Your task to perform on an android device: Open calendar and show me the second week of next month Image 0: 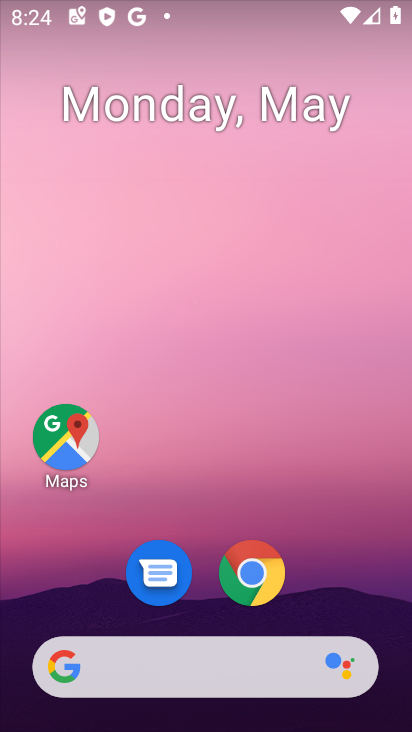
Step 0: drag from (260, 672) to (265, 184)
Your task to perform on an android device: Open calendar and show me the second week of next month Image 1: 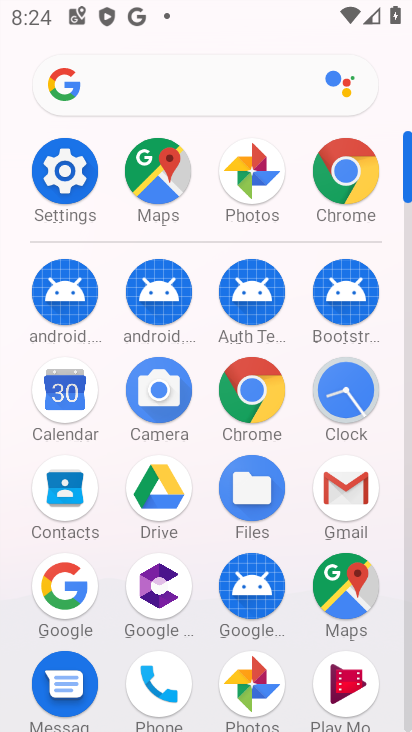
Step 1: click (71, 405)
Your task to perform on an android device: Open calendar and show me the second week of next month Image 2: 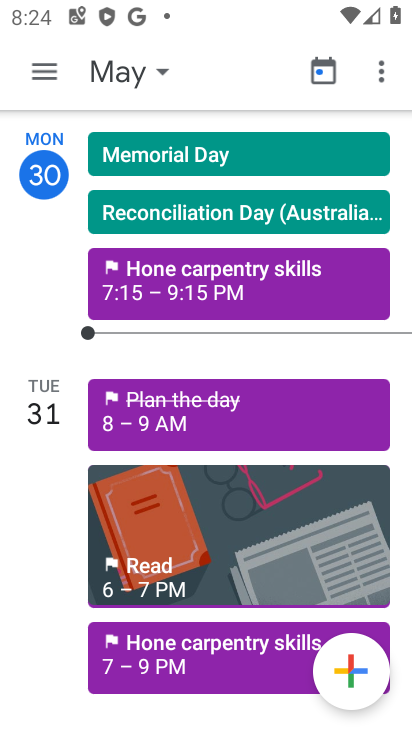
Step 2: click (139, 76)
Your task to perform on an android device: Open calendar and show me the second week of next month Image 3: 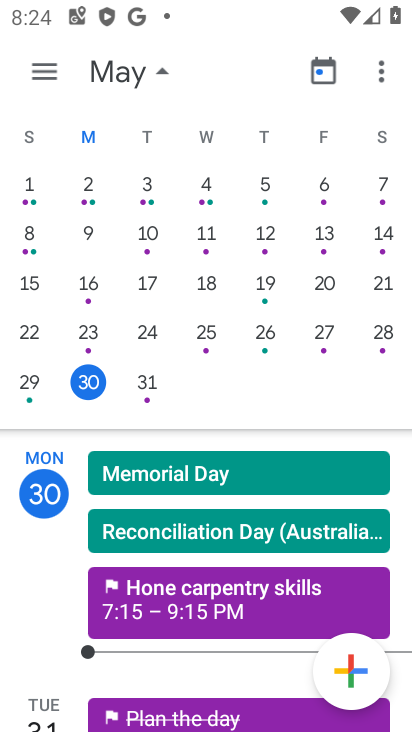
Step 3: drag from (337, 328) to (0, 290)
Your task to perform on an android device: Open calendar and show me the second week of next month Image 4: 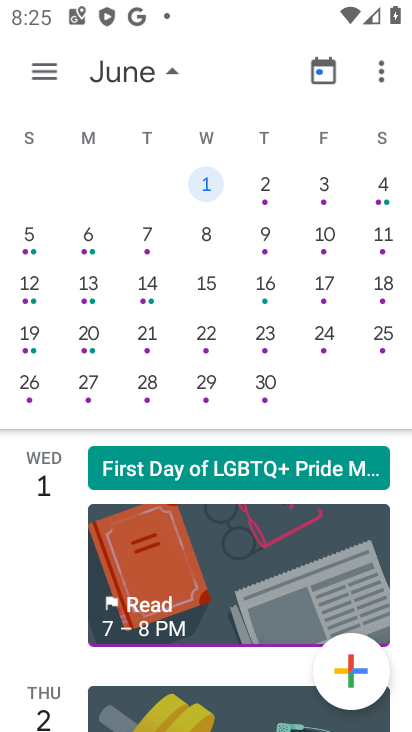
Step 4: click (37, 242)
Your task to perform on an android device: Open calendar and show me the second week of next month Image 5: 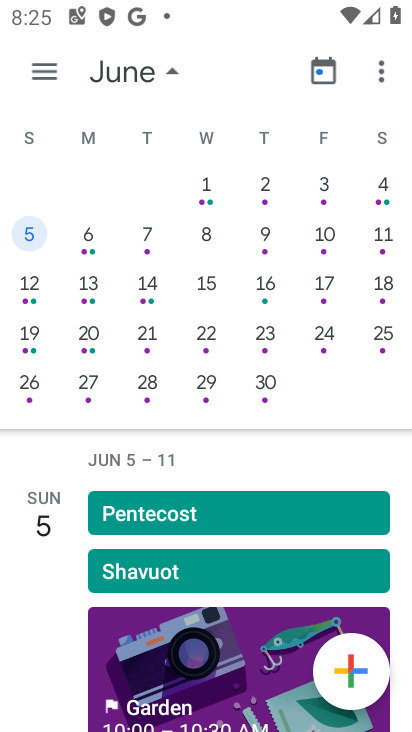
Step 5: task complete